Your task to perform on an android device: turn on javascript in the chrome app Image 0: 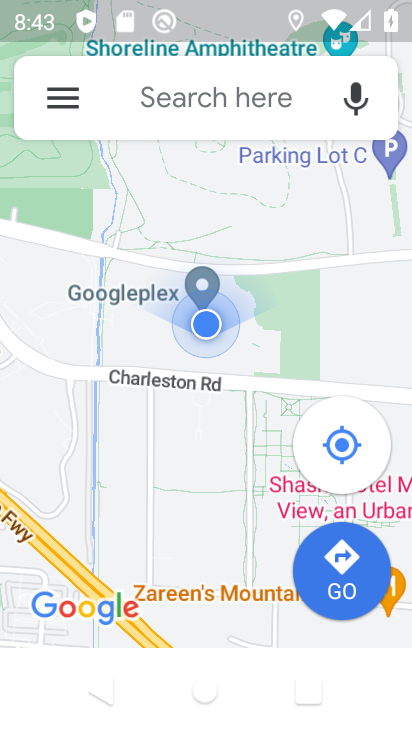
Step 0: press home button
Your task to perform on an android device: turn on javascript in the chrome app Image 1: 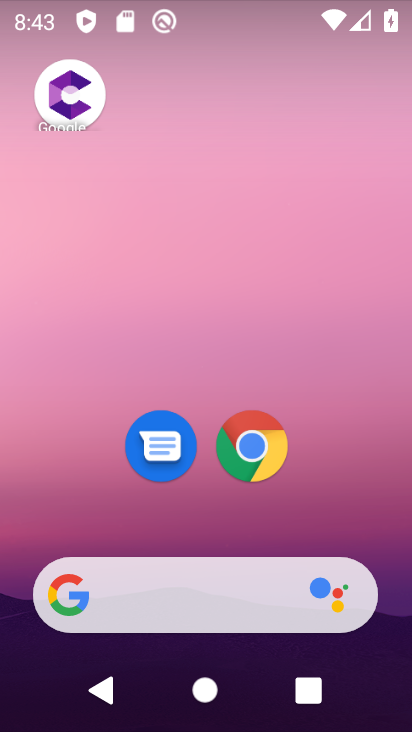
Step 1: click (248, 443)
Your task to perform on an android device: turn on javascript in the chrome app Image 2: 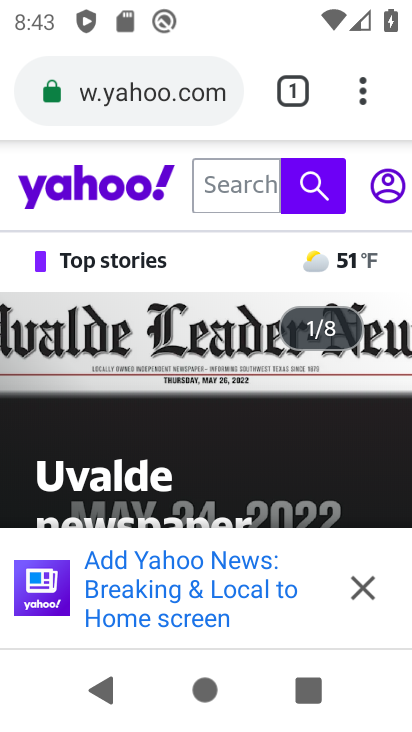
Step 2: drag from (360, 90) to (185, 479)
Your task to perform on an android device: turn on javascript in the chrome app Image 3: 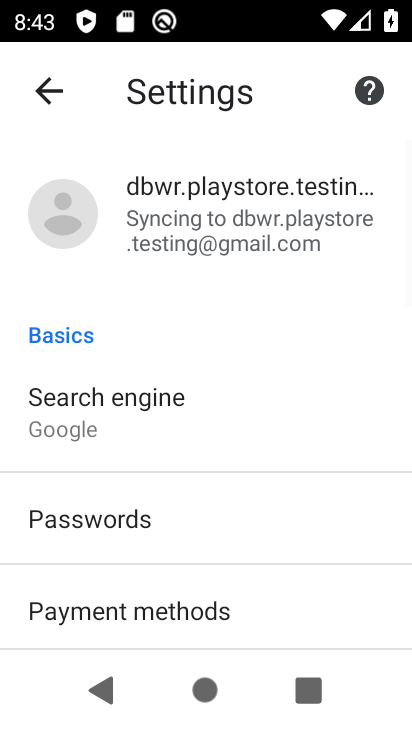
Step 3: drag from (253, 520) to (331, 246)
Your task to perform on an android device: turn on javascript in the chrome app Image 4: 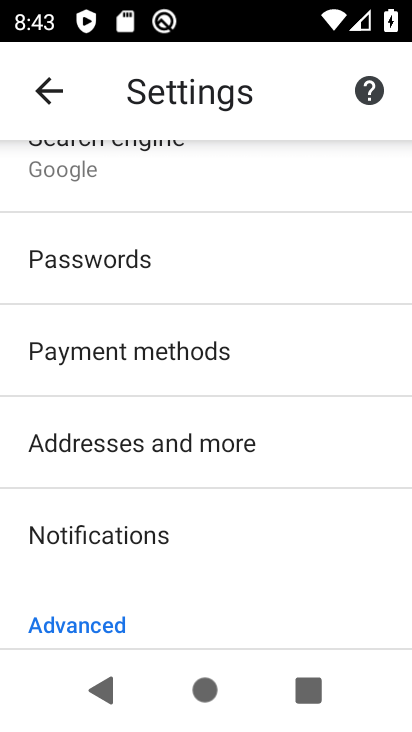
Step 4: drag from (275, 609) to (341, 229)
Your task to perform on an android device: turn on javascript in the chrome app Image 5: 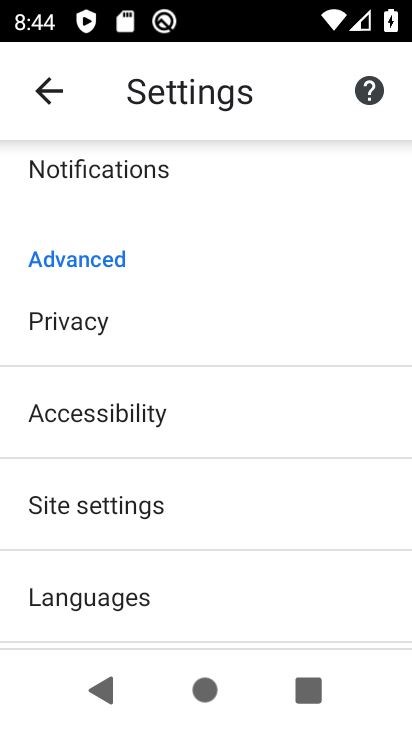
Step 5: click (128, 505)
Your task to perform on an android device: turn on javascript in the chrome app Image 6: 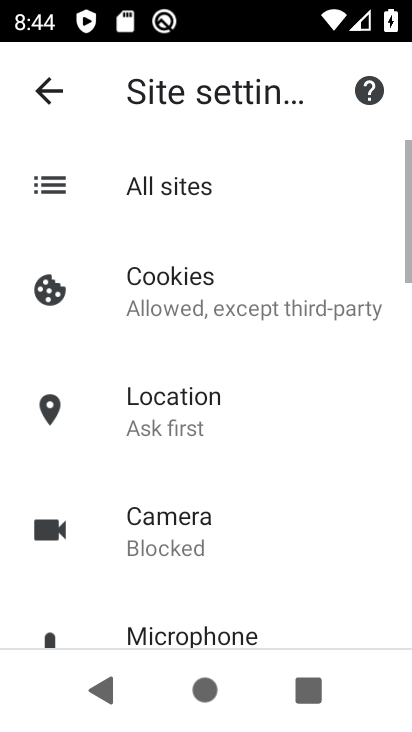
Step 6: drag from (335, 601) to (319, 292)
Your task to perform on an android device: turn on javascript in the chrome app Image 7: 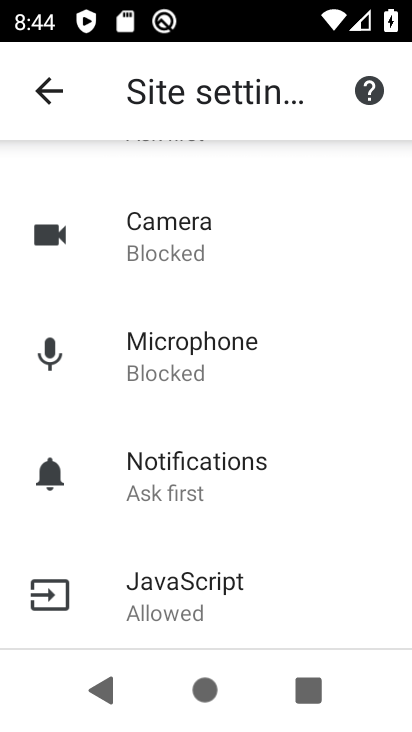
Step 7: click (206, 586)
Your task to perform on an android device: turn on javascript in the chrome app Image 8: 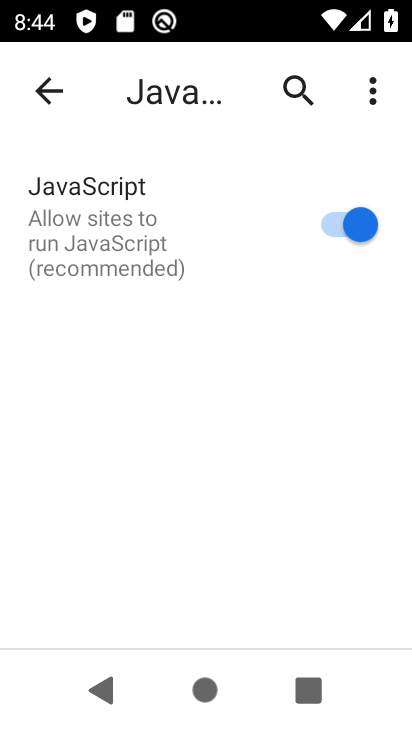
Step 8: task complete